Your task to perform on an android device: add a label to a message in the gmail app Image 0: 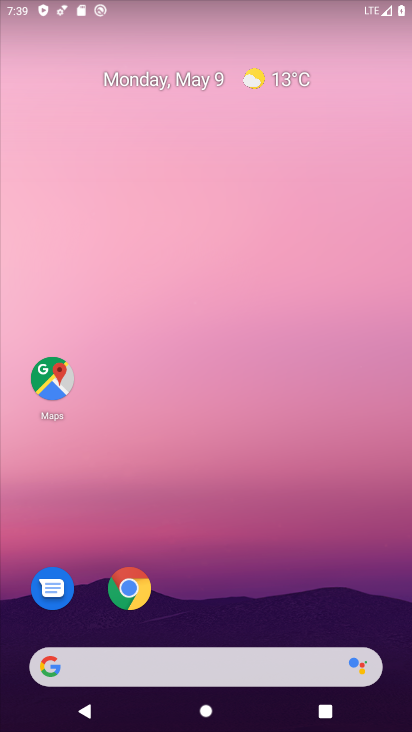
Step 0: drag from (314, 587) to (246, 136)
Your task to perform on an android device: add a label to a message in the gmail app Image 1: 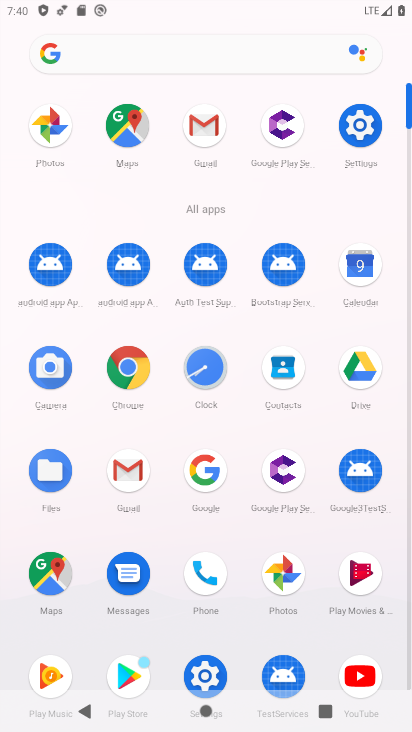
Step 1: click (215, 145)
Your task to perform on an android device: add a label to a message in the gmail app Image 2: 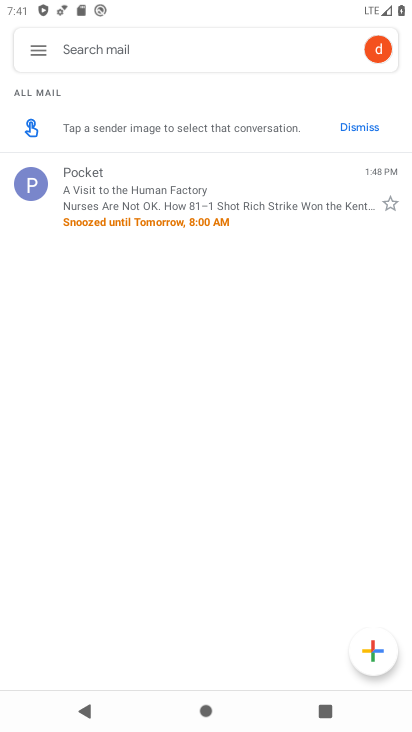
Step 2: click (217, 192)
Your task to perform on an android device: add a label to a message in the gmail app Image 3: 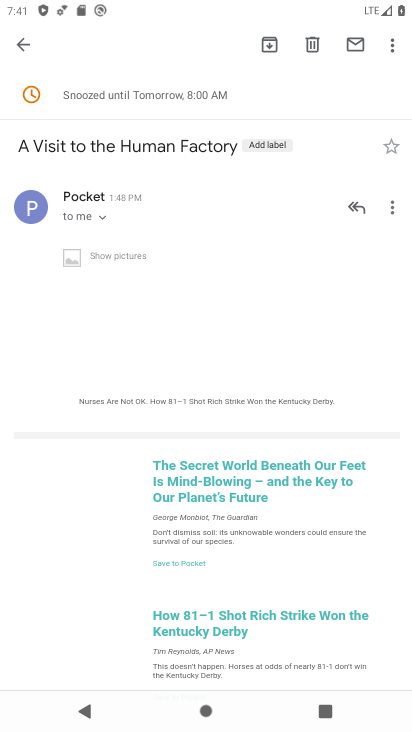
Step 3: click (392, 54)
Your task to perform on an android device: add a label to a message in the gmail app Image 4: 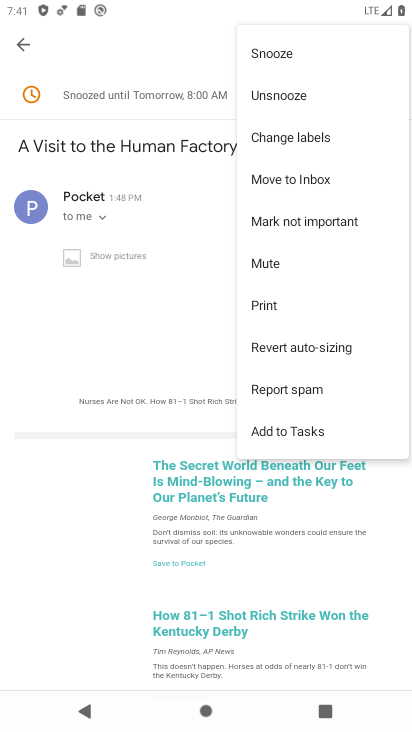
Step 4: click (330, 140)
Your task to perform on an android device: add a label to a message in the gmail app Image 5: 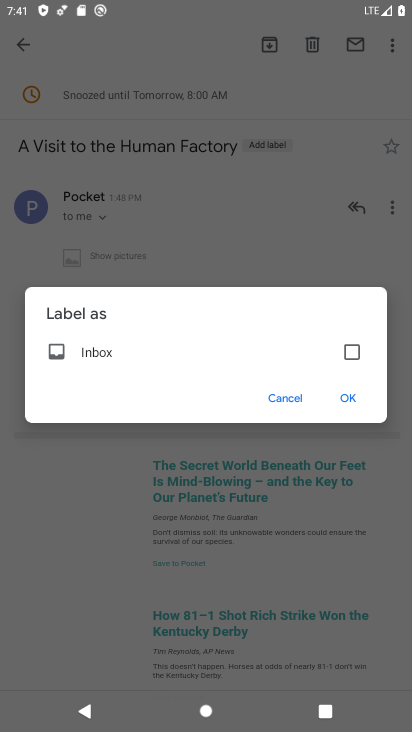
Step 5: click (340, 351)
Your task to perform on an android device: add a label to a message in the gmail app Image 6: 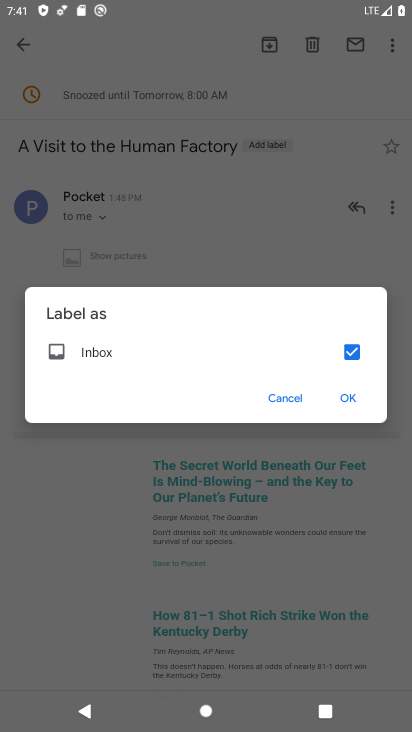
Step 6: click (350, 394)
Your task to perform on an android device: add a label to a message in the gmail app Image 7: 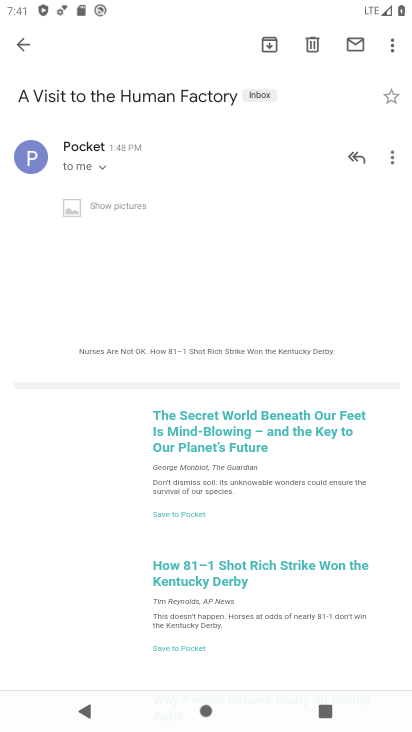
Step 7: task complete